Your task to perform on an android device: Open notification settings Image 0: 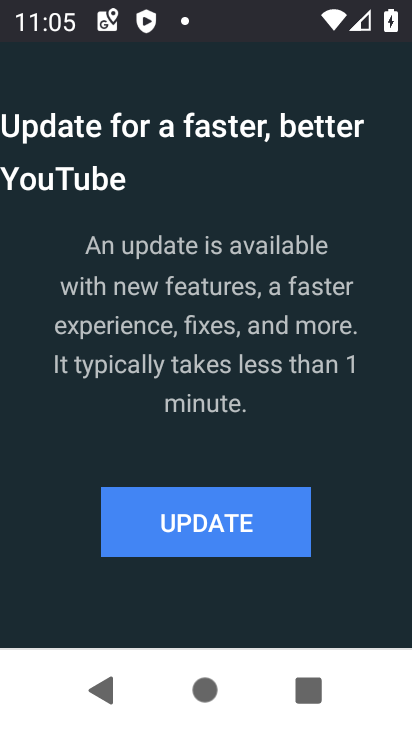
Step 0: press home button
Your task to perform on an android device: Open notification settings Image 1: 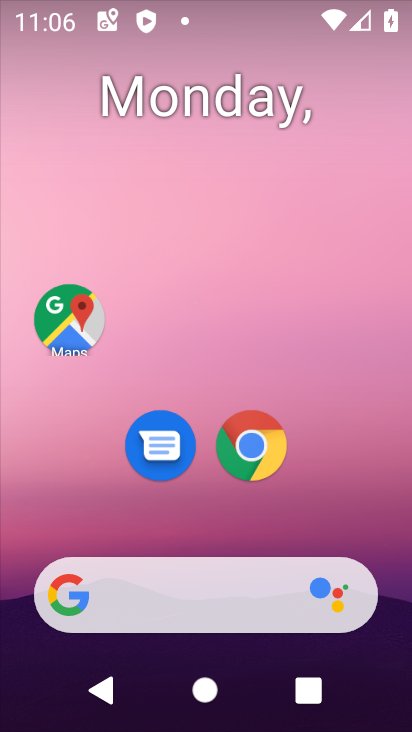
Step 1: drag from (182, 499) to (277, 91)
Your task to perform on an android device: Open notification settings Image 2: 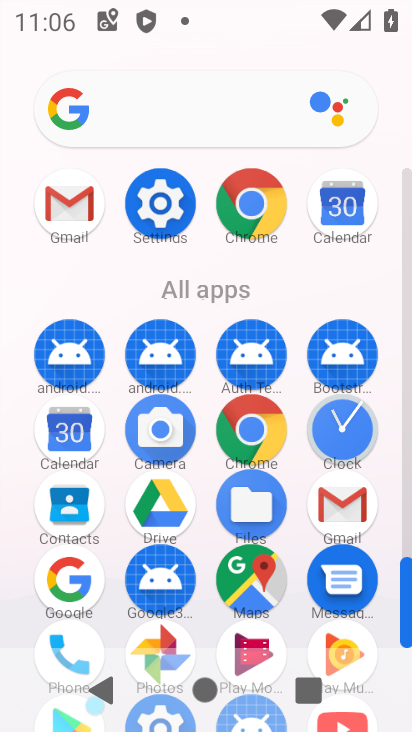
Step 2: click (153, 203)
Your task to perform on an android device: Open notification settings Image 3: 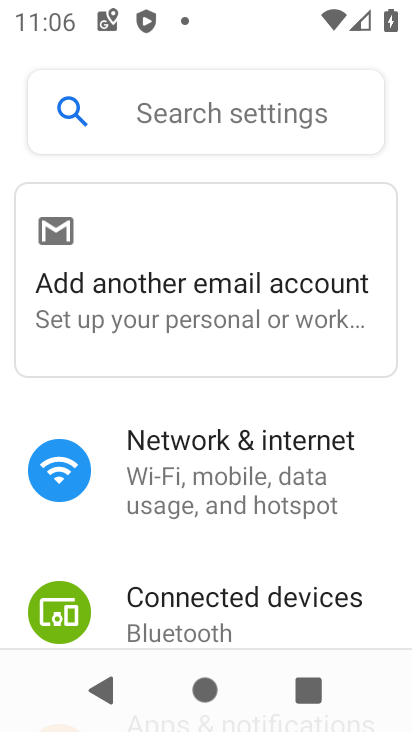
Step 3: drag from (220, 600) to (334, 177)
Your task to perform on an android device: Open notification settings Image 4: 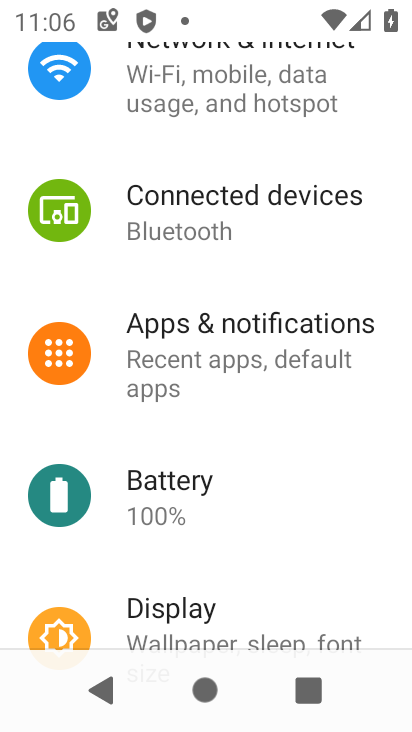
Step 4: click (263, 321)
Your task to perform on an android device: Open notification settings Image 5: 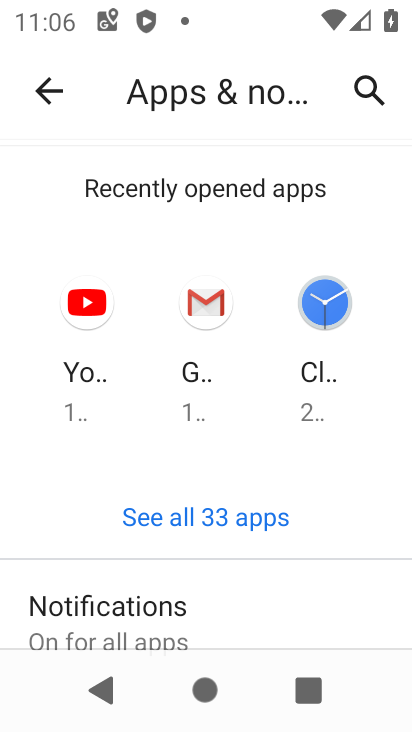
Step 5: task complete